Your task to perform on an android device: show emergency info Image 0: 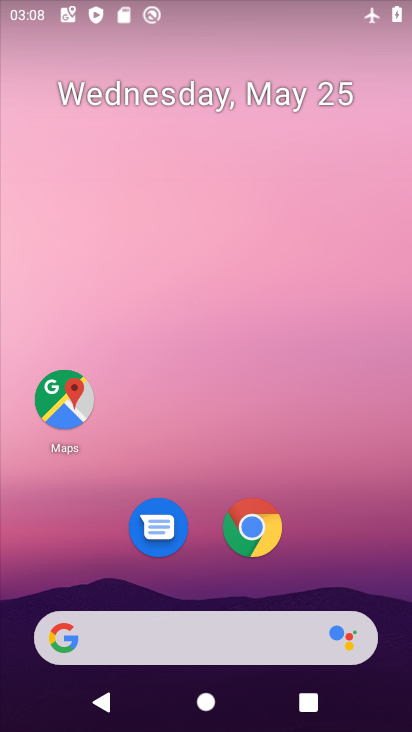
Step 0: drag from (261, 355) to (289, 110)
Your task to perform on an android device: show emergency info Image 1: 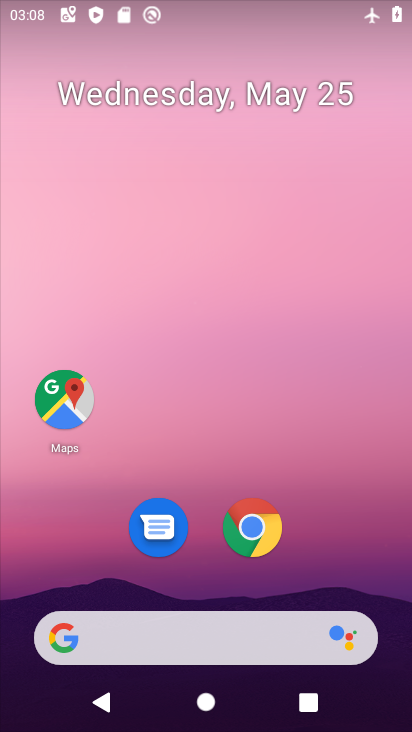
Step 1: drag from (194, 553) to (226, 215)
Your task to perform on an android device: show emergency info Image 2: 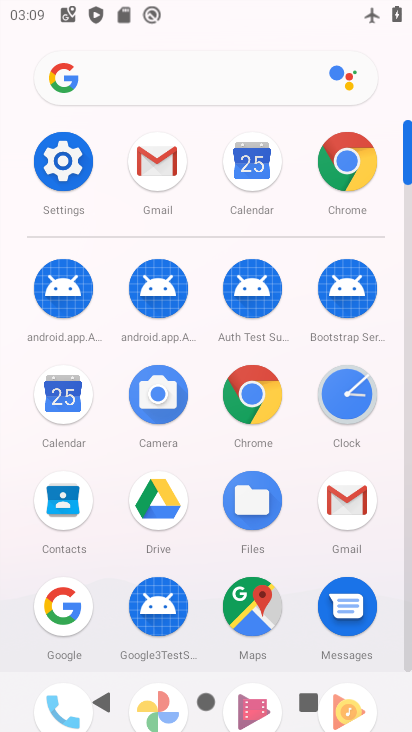
Step 2: click (67, 165)
Your task to perform on an android device: show emergency info Image 3: 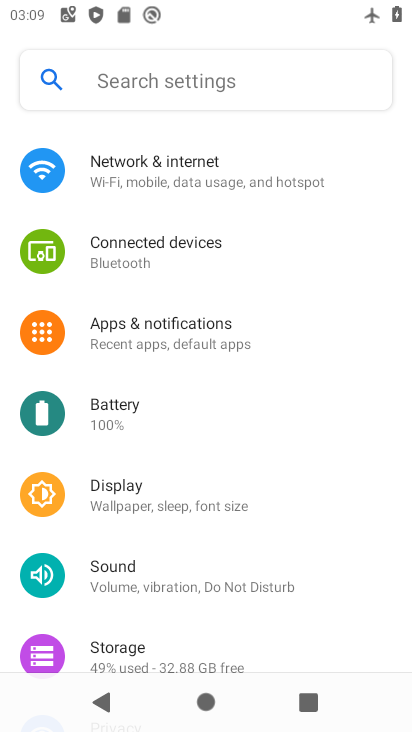
Step 3: drag from (241, 515) to (233, 263)
Your task to perform on an android device: show emergency info Image 4: 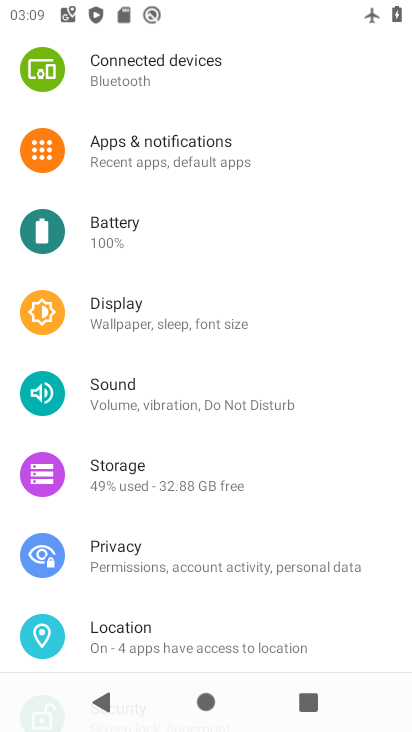
Step 4: drag from (222, 355) to (281, 59)
Your task to perform on an android device: show emergency info Image 5: 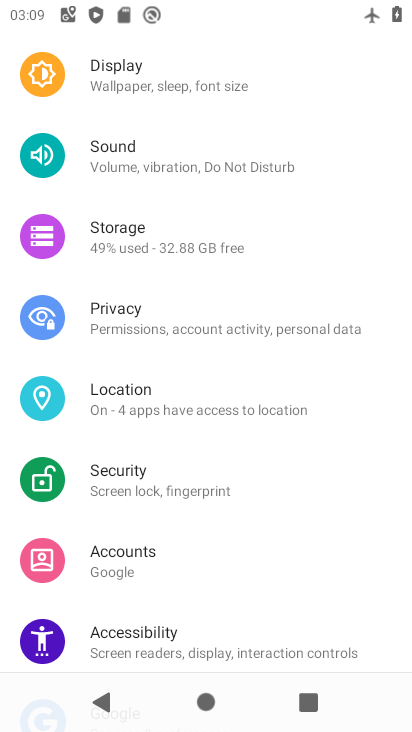
Step 5: drag from (222, 576) to (222, 195)
Your task to perform on an android device: show emergency info Image 6: 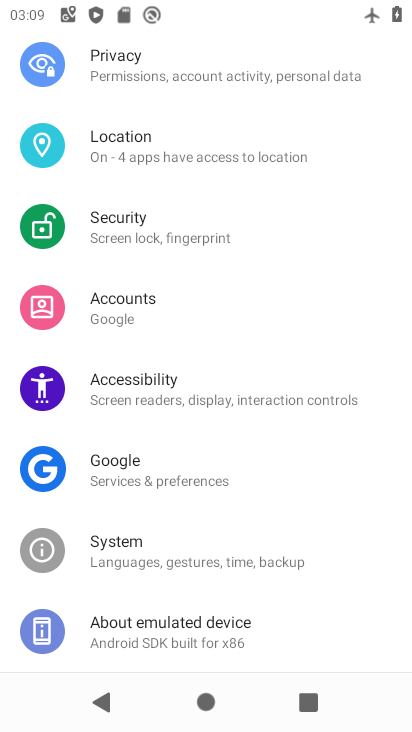
Step 6: drag from (189, 502) to (200, 67)
Your task to perform on an android device: show emergency info Image 7: 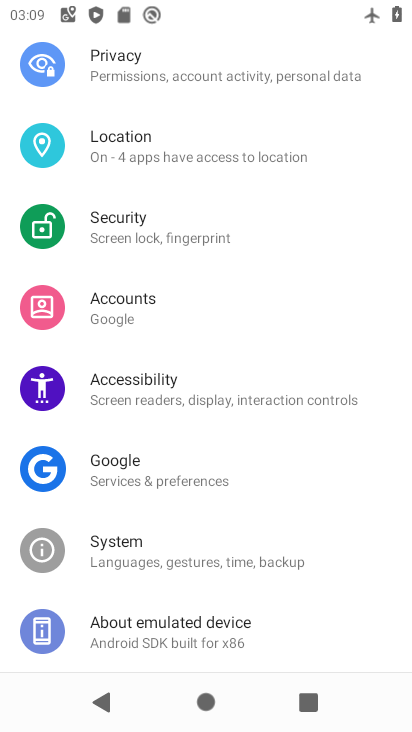
Step 7: drag from (192, 572) to (194, 283)
Your task to perform on an android device: show emergency info Image 8: 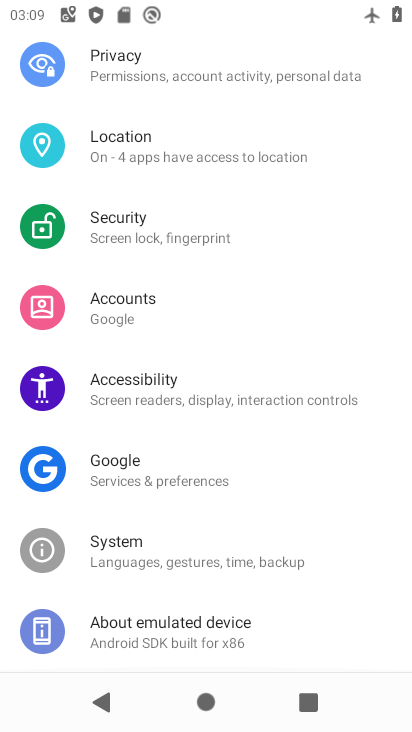
Step 8: drag from (191, 232) to (265, 665)
Your task to perform on an android device: show emergency info Image 9: 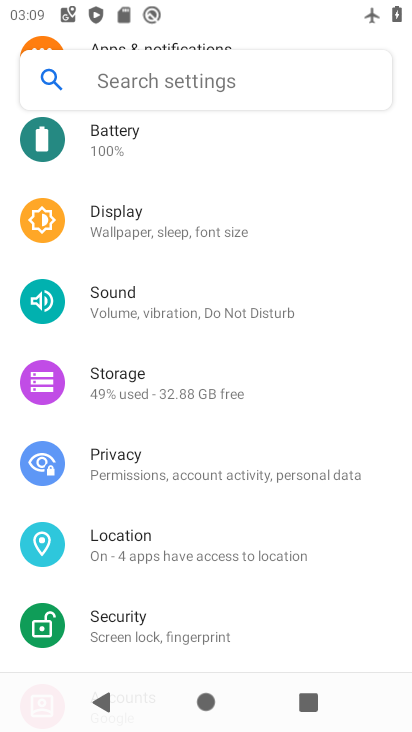
Step 9: drag from (183, 329) to (256, 638)
Your task to perform on an android device: show emergency info Image 10: 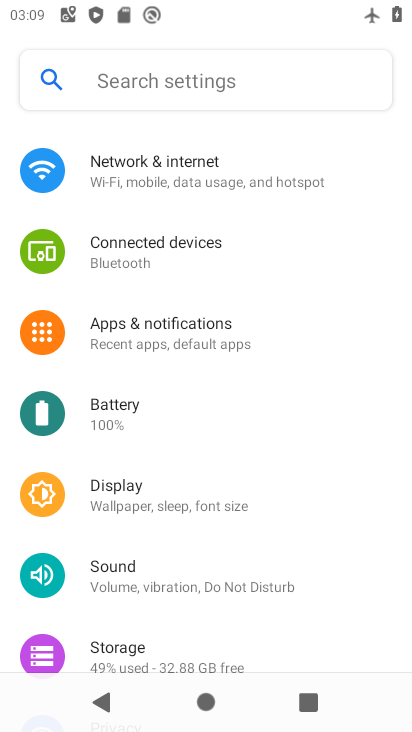
Step 10: drag from (195, 614) to (208, 216)
Your task to perform on an android device: show emergency info Image 11: 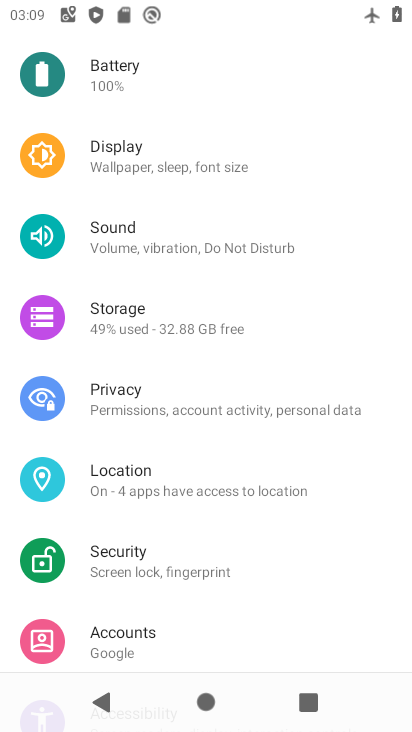
Step 11: drag from (192, 597) to (264, 98)
Your task to perform on an android device: show emergency info Image 12: 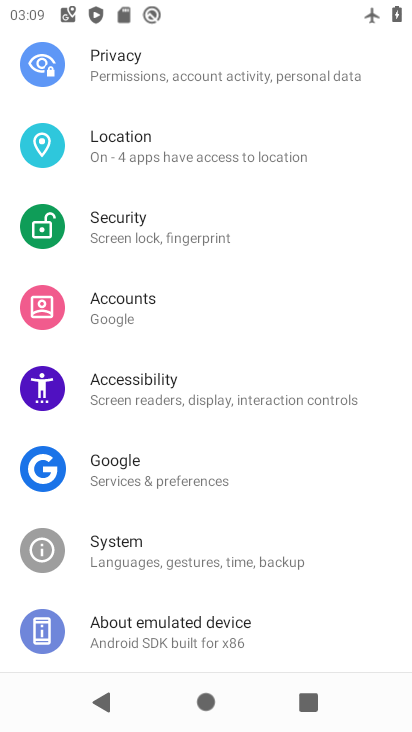
Step 12: click (164, 632)
Your task to perform on an android device: show emergency info Image 13: 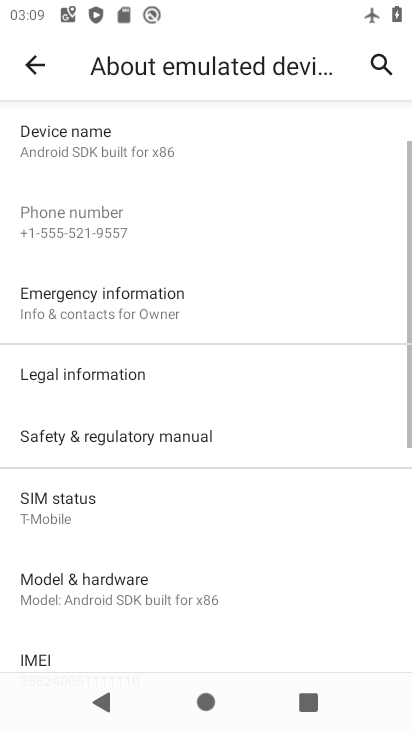
Step 13: click (157, 320)
Your task to perform on an android device: show emergency info Image 14: 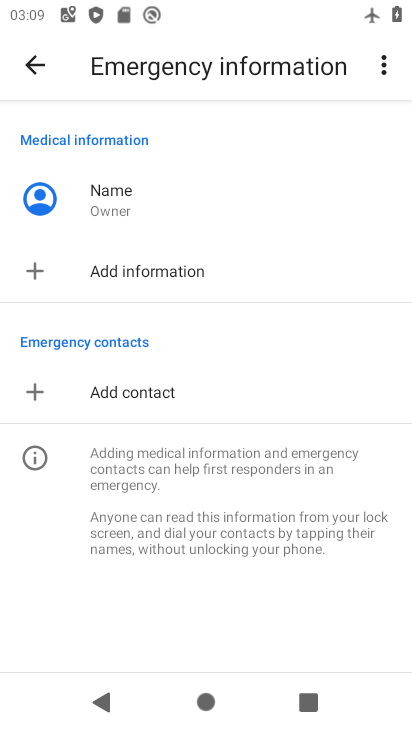
Step 14: task complete